Your task to perform on an android device: toggle priority inbox in the gmail app Image 0: 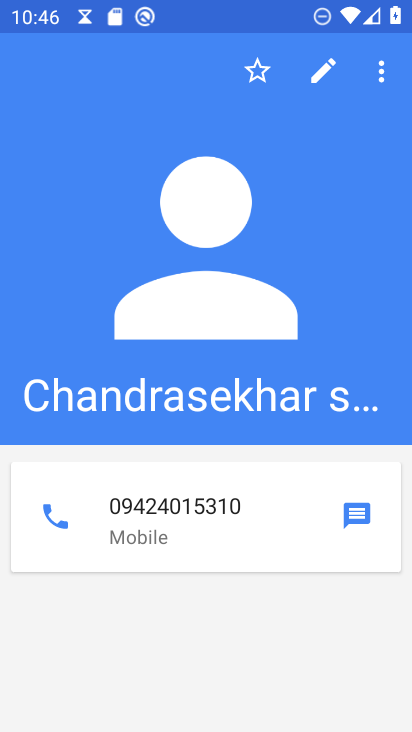
Step 0: press back button
Your task to perform on an android device: toggle priority inbox in the gmail app Image 1: 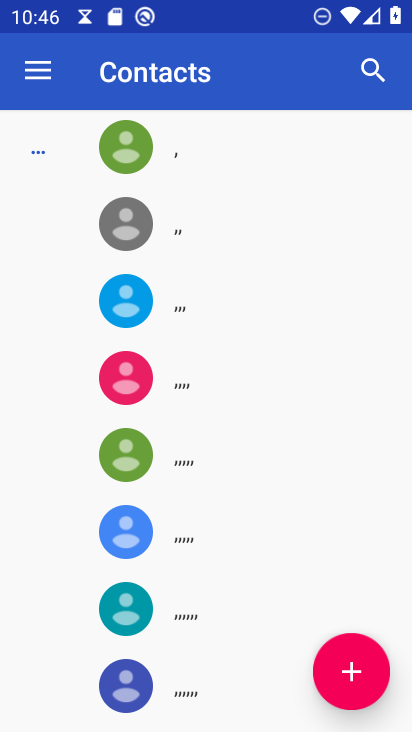
Step 1: press back button
Your task to perform on an android device: toggle priority inbox in the gmail app Image 2: 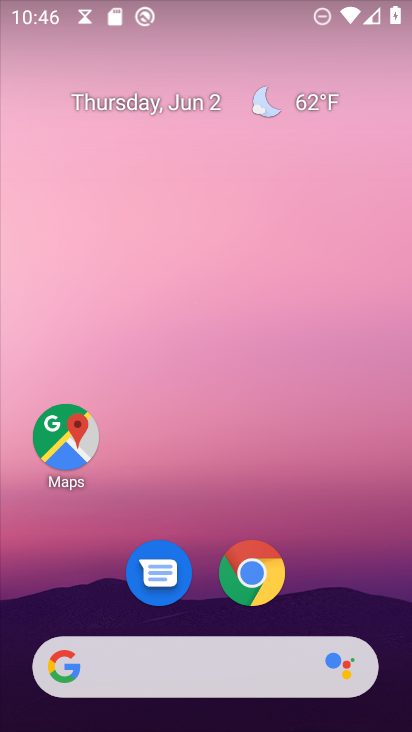
Step 2: drag from (336, 561) to (275, 2)
Your task to perform on an android device: toggle priority inbox in the gmail app Image 3: 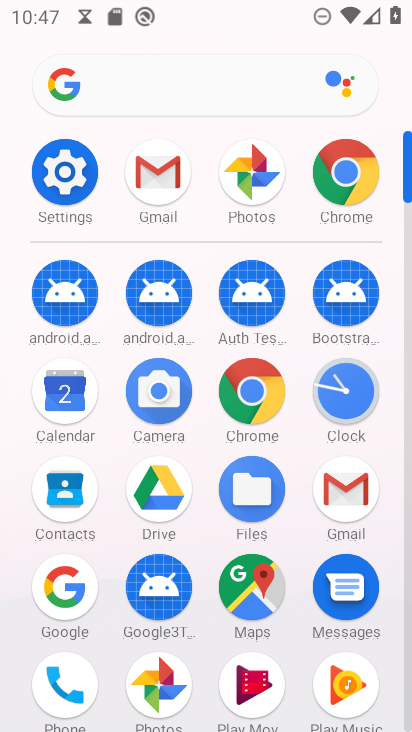
Step 3: click (157, 174)
Your task to perform on an android device: toggle priority inbox in the gmail app Image 4: 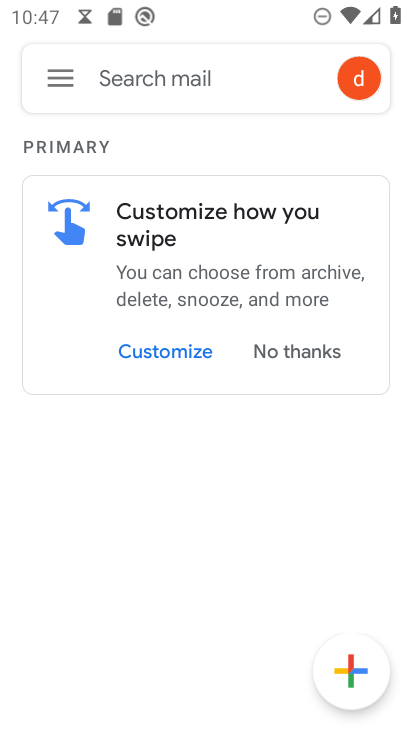
Step 4: click (50, 63)
Your task to perform on an android device: toggle priority inbox in the gmail app Image 5: 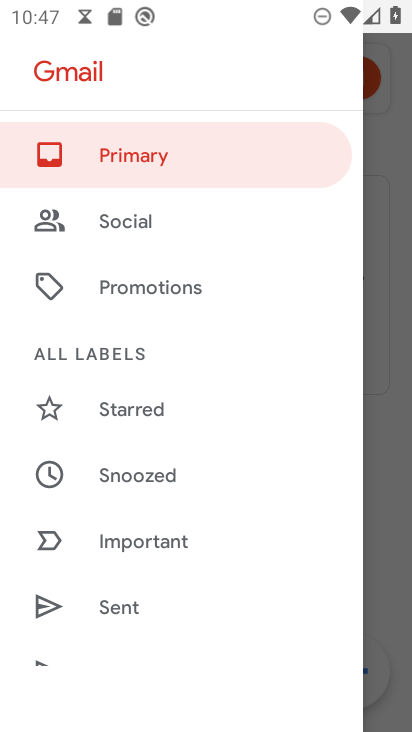
Step 5: drag from (128, 318) to (182, 225)
Your task to perform on an android device: toggle priority inbox in the gmail app Image 6: 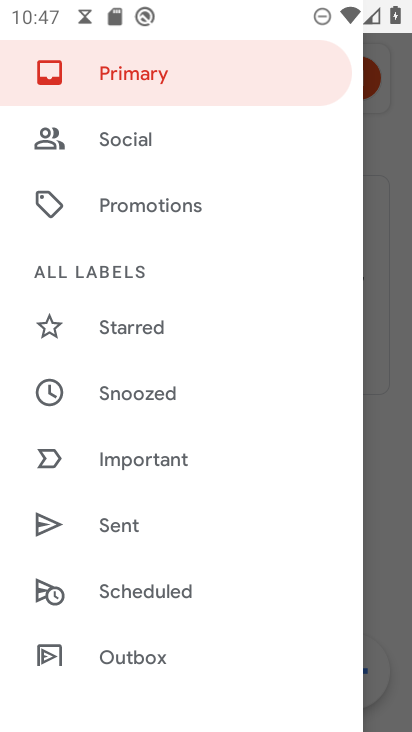
Step 6: drag from (140, 348) to (204, 257)
Your task to perform on an android device: toggle priority inbox in the gmail app Image 7: 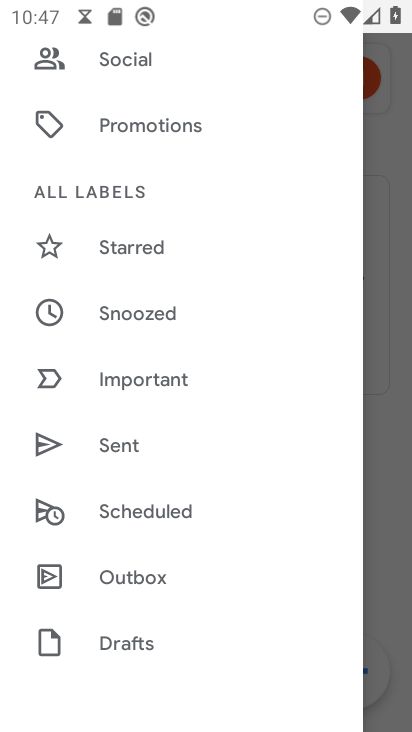
Step 7: drag from (157, 343) to (228, 248)
Your task to perform on an android device: toggle priority inbox in the gmail app Image 8: 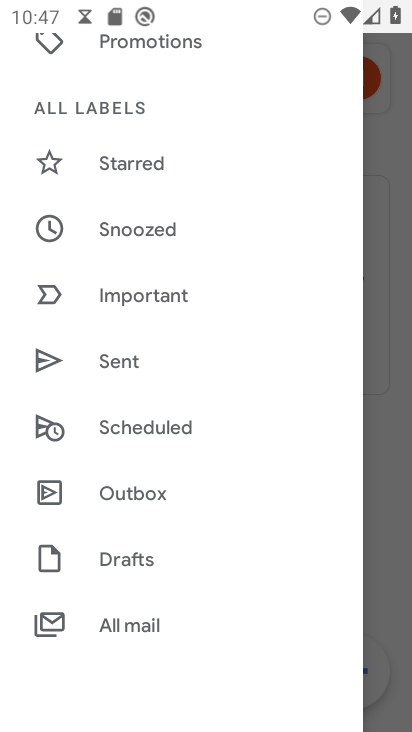
Step 8: drag from (155, 330) to (253, 222)
Your task to perform on an android device: toggle priority inbox in the gmail app Image 9: 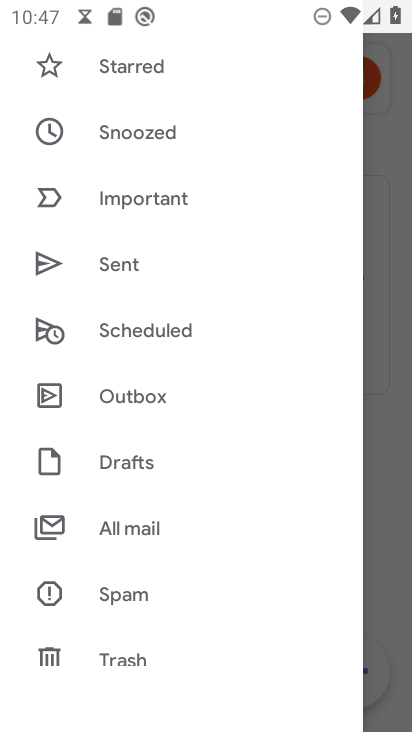
Step 9: drag from (151, 303) to (236, 203)
Your task to perform on an android device: toggle priority inbox in the gmail app Image 10: 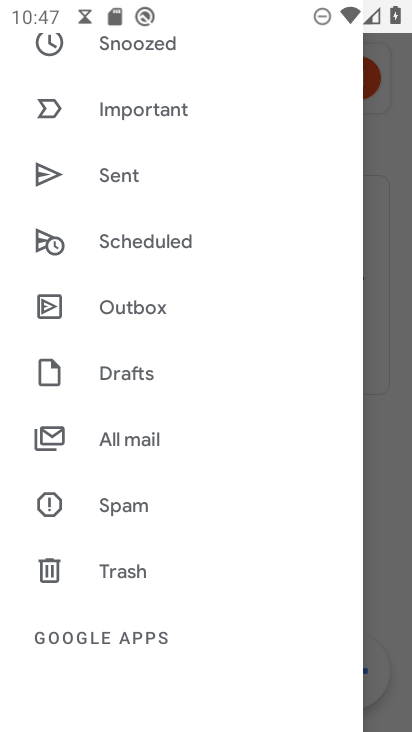
Step 10: drag from (152, 277) to (224, 185)
Your task to perform on an android device: toggle priority inbox in the gmail app Image 11: 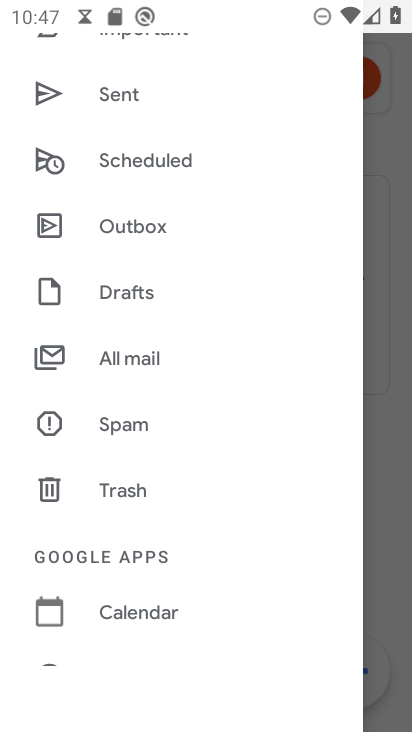
Step 11: drag from (123, 315) to (204, 225)
Your task to perform on an android device: toggle priority inbox in the gmail app Image 12: 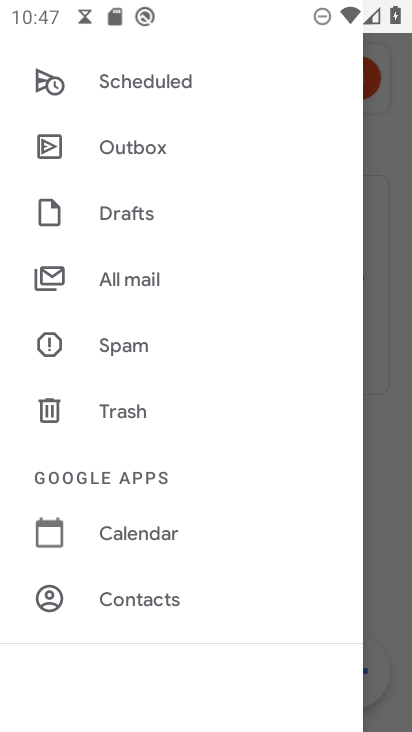
Step 12: drag from (134, 307) to (223, 219)
Your task to perform on an android device: toggle priority inbox in the gmail app Image 13: 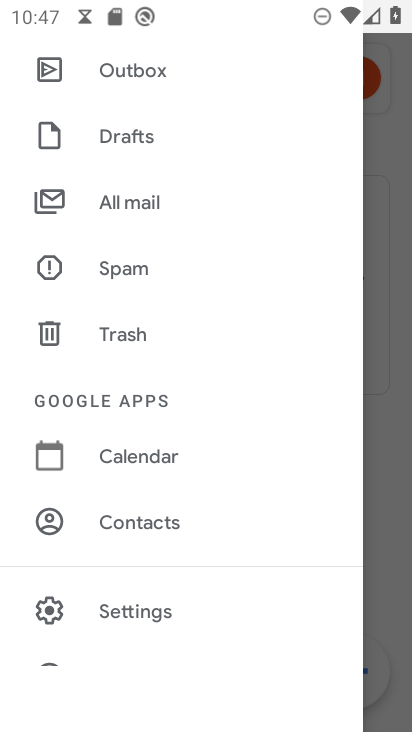
Step 13: drag from (130, 309) to (206, 224)
Your task to perform on an android device: toggle priority inbox in the gmail app Image 14: 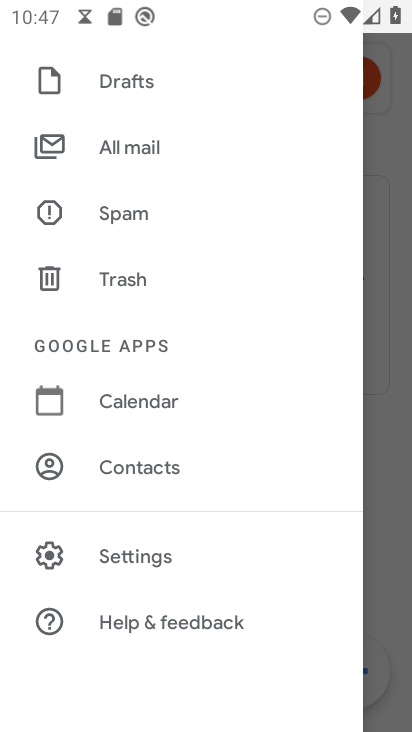
Step 14: click (131, 554)
Your task to perform on an android device: toggle priority inbox in the gmail app Image 15: 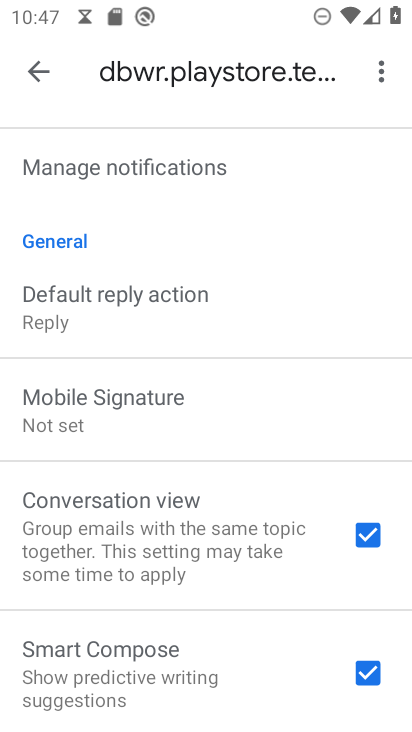
Step 15: drag from (128, 227) to (161, 339)
Your task to perform on an android device: toggle priority inbox in the gmail app Image 16: 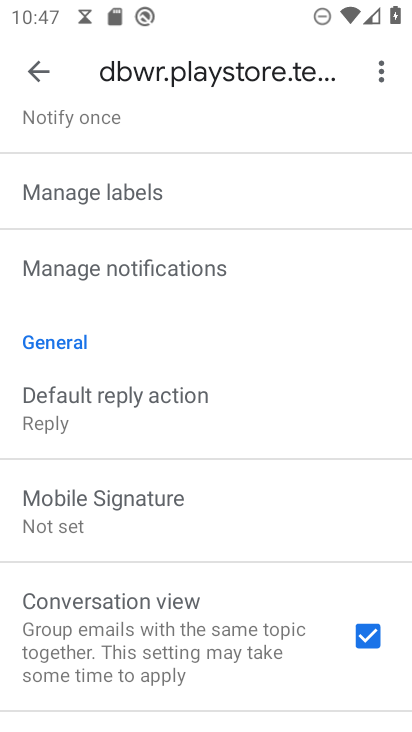
Step 16: drag from (182, 176) to (197, 308)
Your task to perform on an android device: toggle priority inbox in the gmail app Image 17: 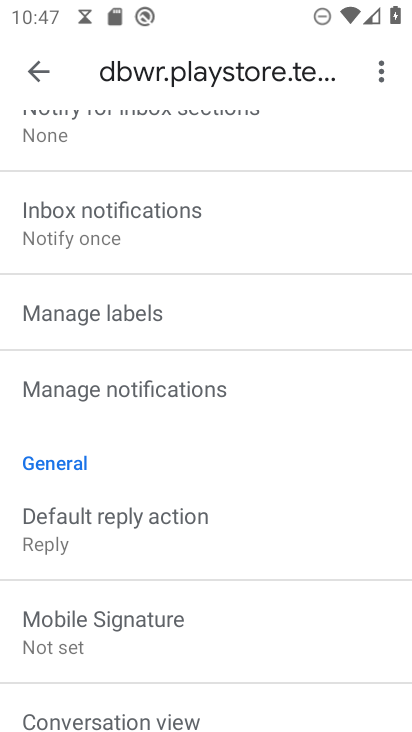
Step 17: drag from (218, 201) to (231, 317)
Your task to perform on an android device: toggle priority inbox in the gmail app Image 18: 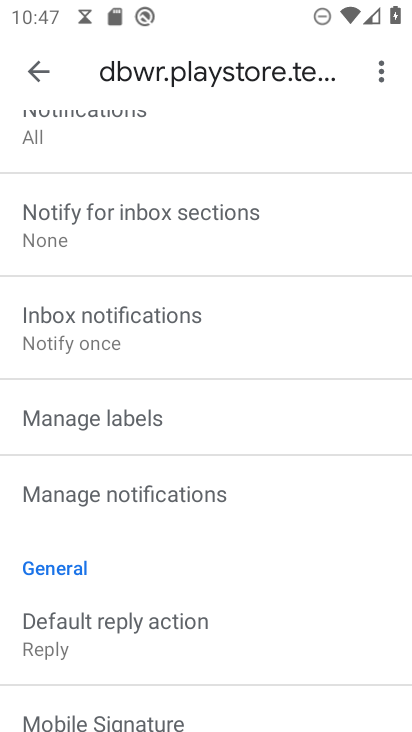
Step 18: drag from (250, 226) to (237, 305)
Your task to perform on an android device: toggle priority inbox in the gmail app Image 19: 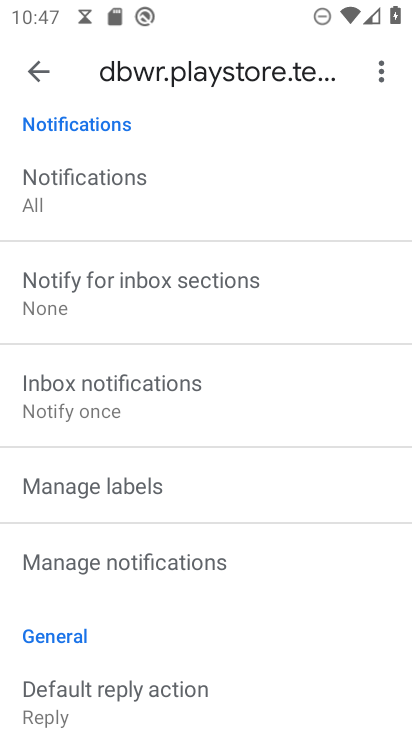
Step 19: drag from (234, 154) to (230, 263)
Your task to perform on an android device: toggle priority inbox in the gmail app Image 20: 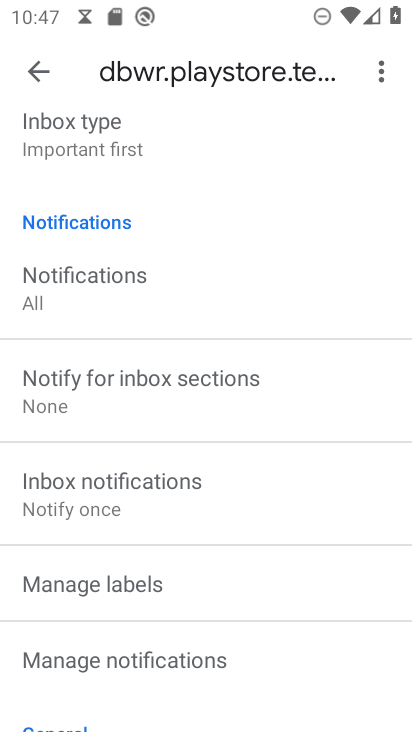
Step 20: drag from (189, 182) to (206, 308)
Your task to perform on an android device: toggle priority inbox in the gmail app Image 21: 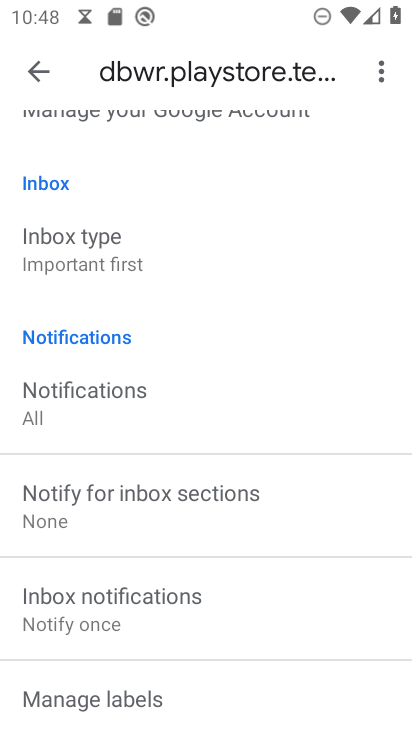
Step 21: click (142, 273)
Your task to perform on an android device: toggle priority inbox in the gmail app Image 22: 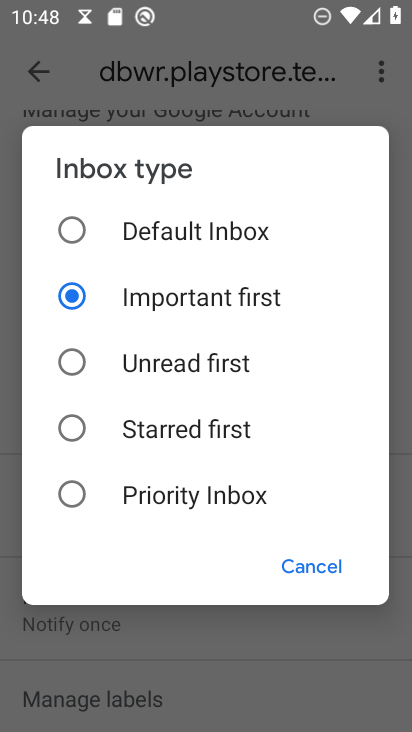
Step 22: click (64, 496)
Your task to perform on an android device: toggle priority inbox in the gmail app Image 23: 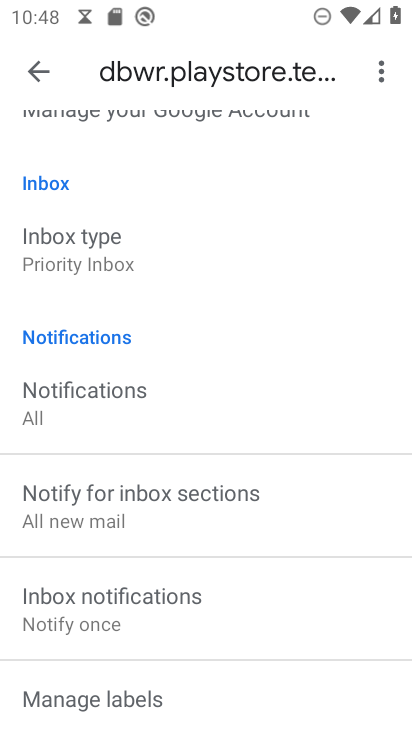
Step 23: task complete